Your task to perform on an android device: What's on my calendar tomorrow? Image 0: 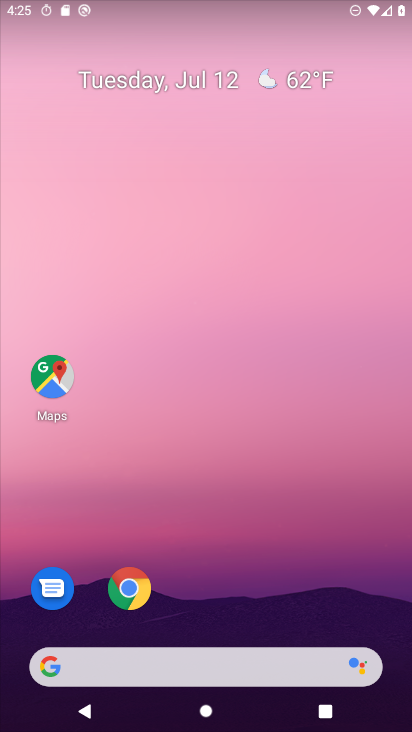
Step 0: drag from (235, 619) to (240, 230)
Your task to perform on an android device: What's on my calendar tomorrow? Image 1: 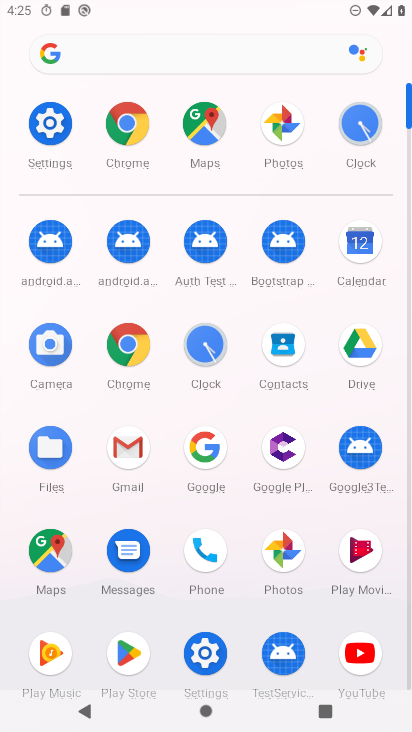
Step 1: click (369, 248)
Your task to perform on an android device: What's on my calendar tomorrow? Image 2: 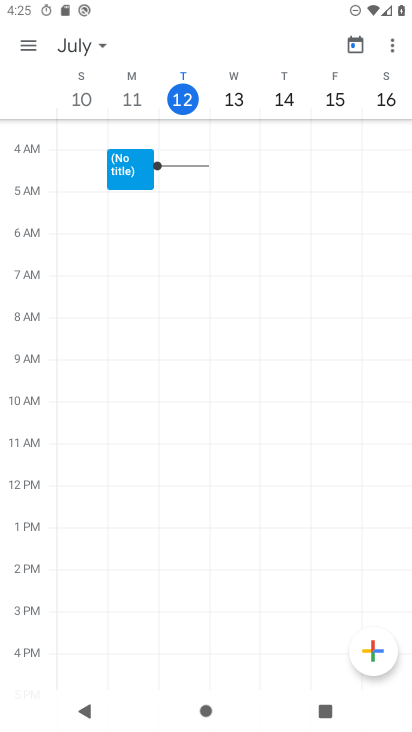
Step 2: click (37, 38)
Your task to perform on an android device: What's on my calendar tomorrow? Image 3: 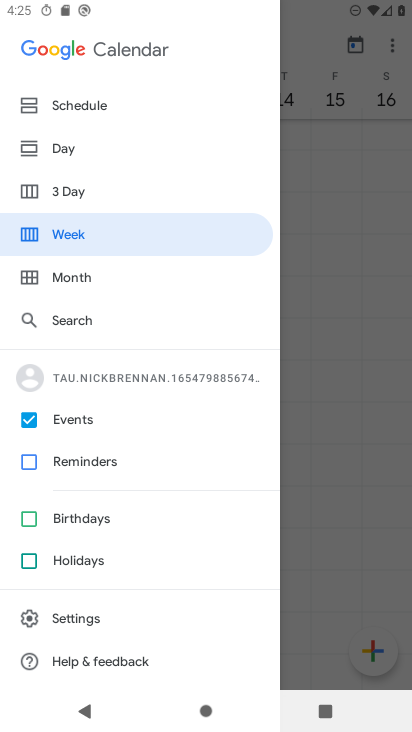
Step 3: click (55, 461)
Your task to perform on an android device: What's on my calendar tomorrow? Image 4: 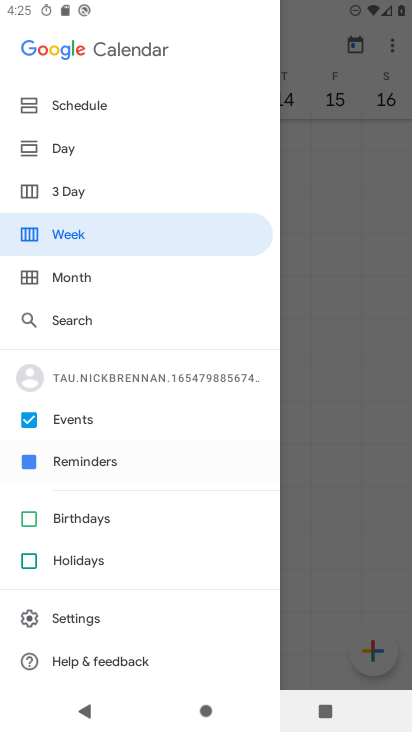
Step 4: click (45, 514)
Your task to perform on an android device: What's on my calendar tomorrow? Image 5: 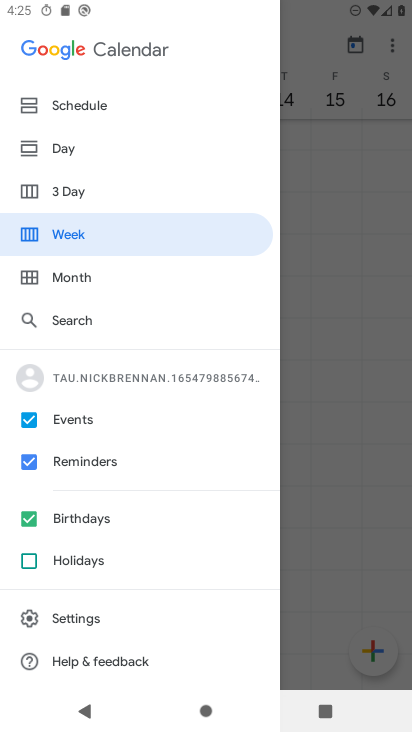
Step 5: click (43, 560)
Your task to perform on an android device: What's on my calendar tomorrow? Image 6: 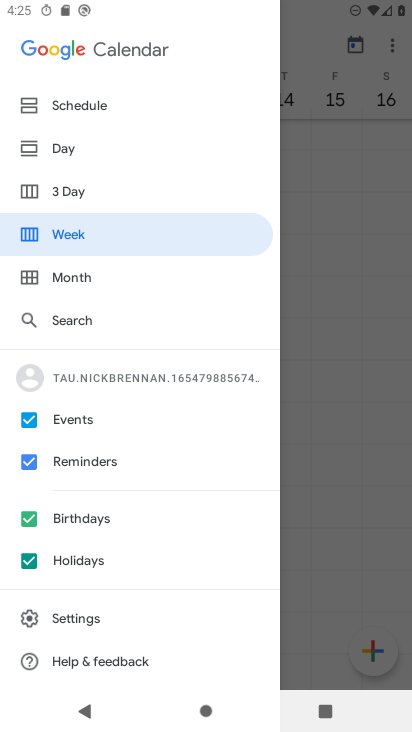
Step 6: click (79, 146)
Your task to perform on an android device: What's on my calendar tomorrow? Image 7: 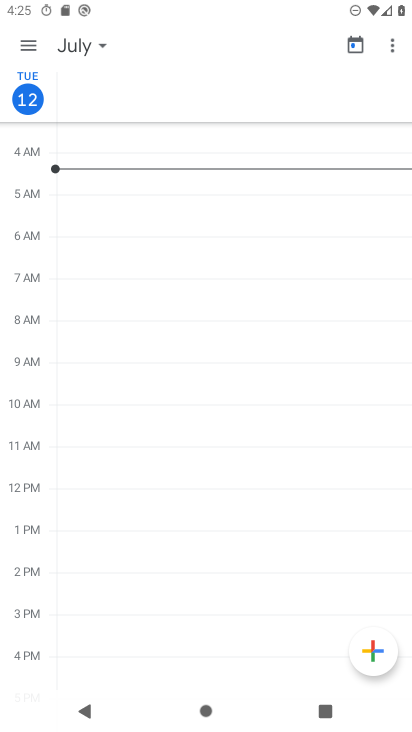
Step 7: task complete